Your task to perform on an android device: Is it going to rain this weekend? Image 0: 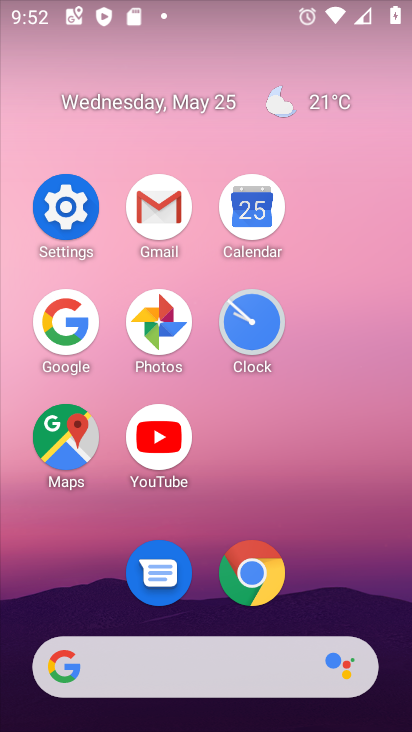
Step 0: click (87, 326)
Your task to perform on an android device: Is it going to rain this weekend? Image 1: 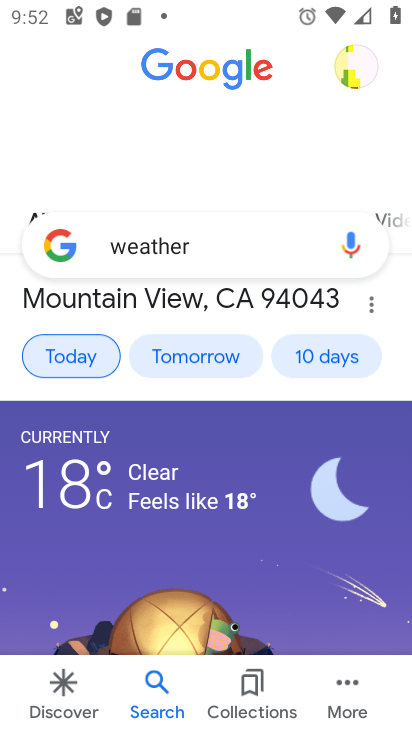
Step 1: click (321, 365)
Your task to perform on an android device: Is it going to rain this weekend? Image 2: 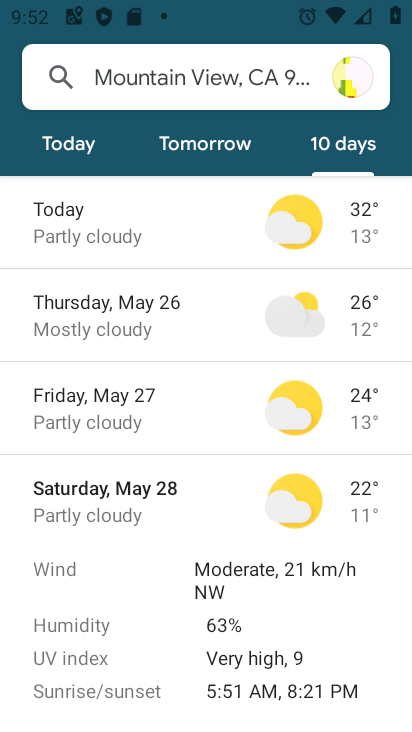
Step 2: task complete